Your task to perform on an android device: change the upload size in google photos Image 0: 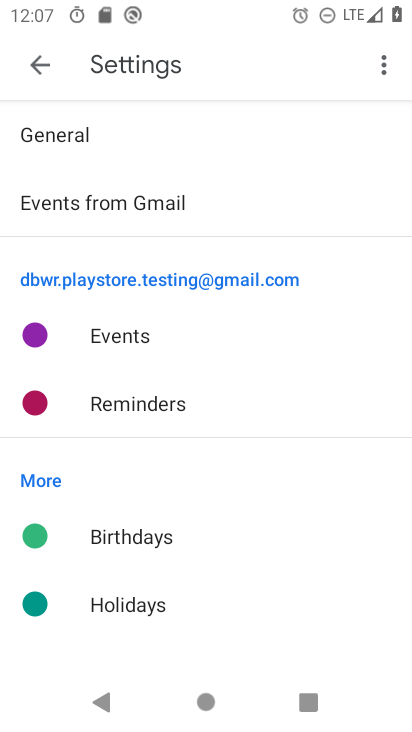
Step 0: press home button
Your task to perform on an android device: change the upload size in google photos Image 1: 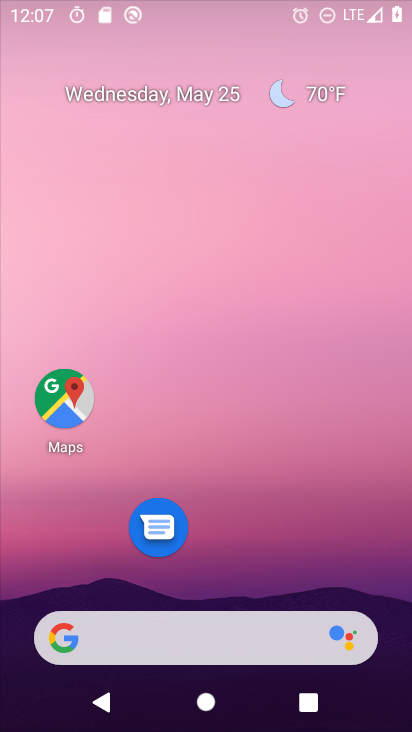
Step 1: drag from (286, 537) to (332, 123)
Your task to perform on an android device: change the upload size in google photos Image 2: 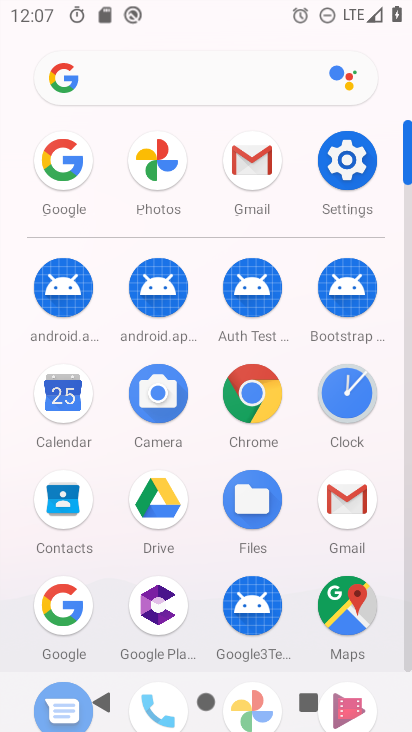
Step 2: click (169, 161)
Your task to perform on an android device: change the upload size in google photos Image 3: 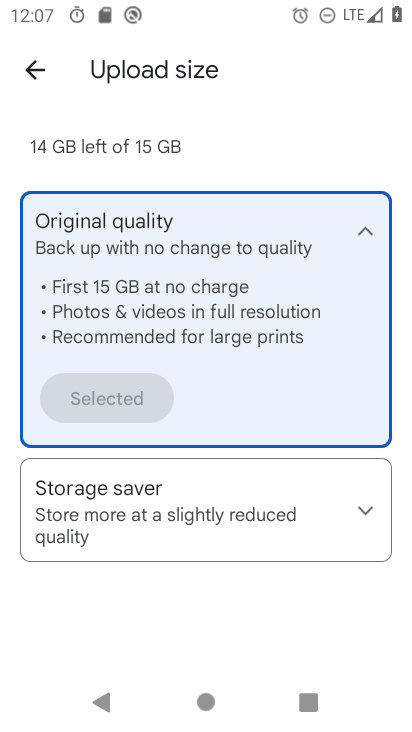
Step 3: click (155, 494)
Your task to perform on an android device: change the upload size in google photos Image 4: 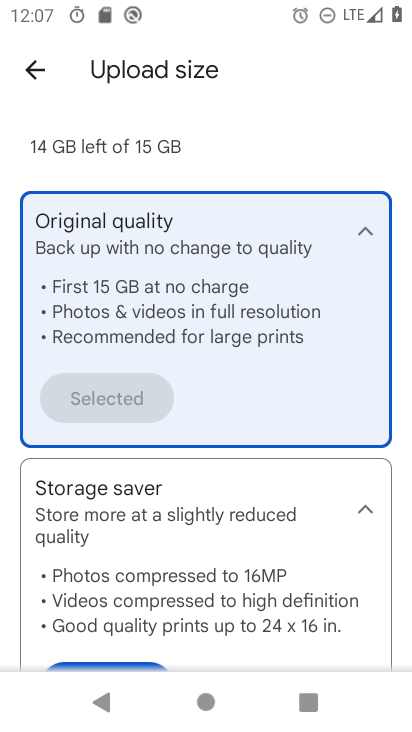
Step 4: drag from (140, 629) to (158, 399)
Your task to perform on an android device: change the upload size in google photos Image 5: 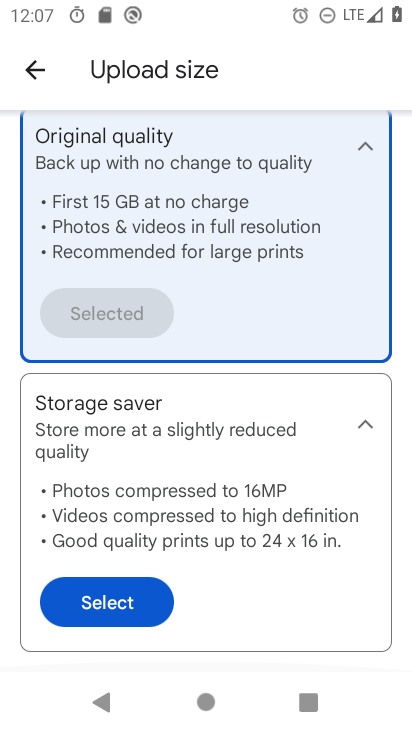
Step 5: click (117, 600)
Your task to perform on an android device: change the upload size in google photos Image 6: 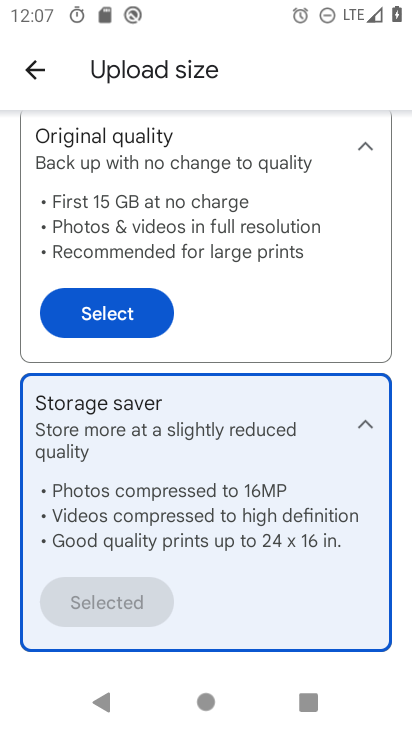
Step 6: task complete